Your task to perform on an android device: change notification settings in the gmail app Image 0: 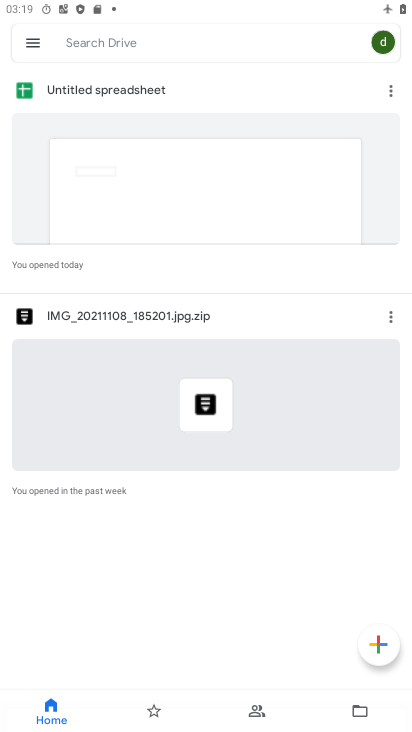
Step 0: press home button
Your task to perform on an android device: change notification settings in the gmail app Image 1: 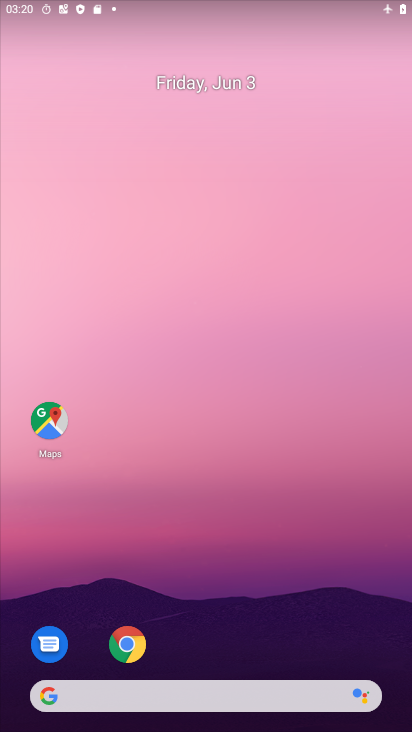
Step 1: drag from (201, 660) to (275, 118)
Your task to perform on an android device: change notification settings in the gmail app Image 2: 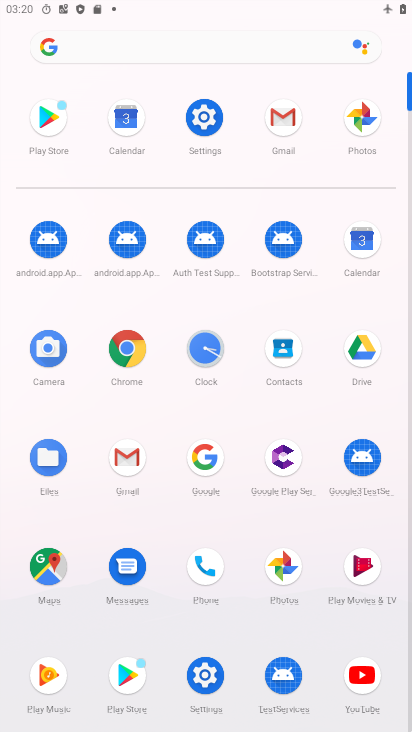
Step 2: click (275, 118)
Your task to perform on an android device: change notification settings in the gmail app Image 3: 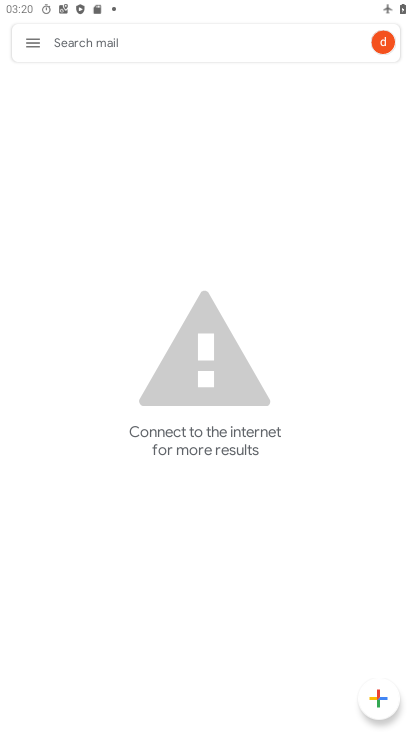
Step 3: click (27, 43)
Your task to perform on an android device: change notification settings in the gmail app Image 4: 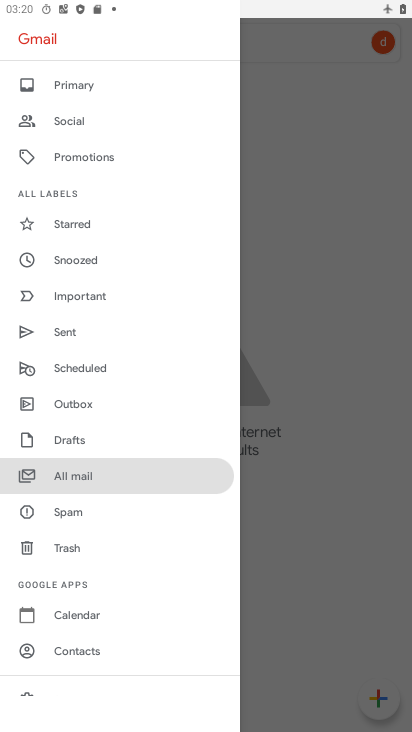
Step 4: drag from (115, 629) to (178, 211)
Your task to perform on an android device: change notification settings in the gmail app Image 5: 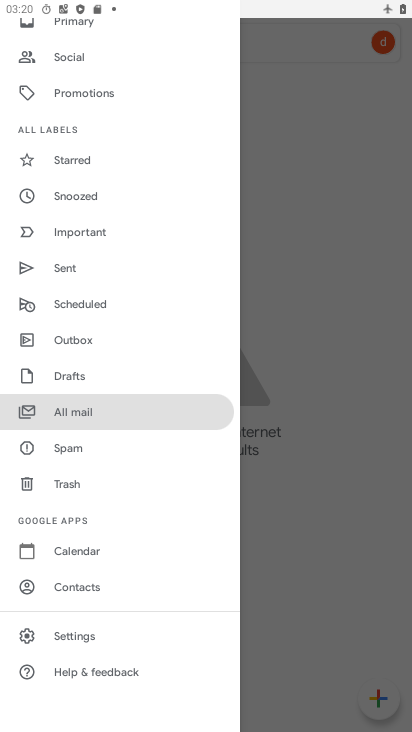
Step 5: click (80, 626)
Your task to perform on an android device: change notification settings in the gmail app Image 6: 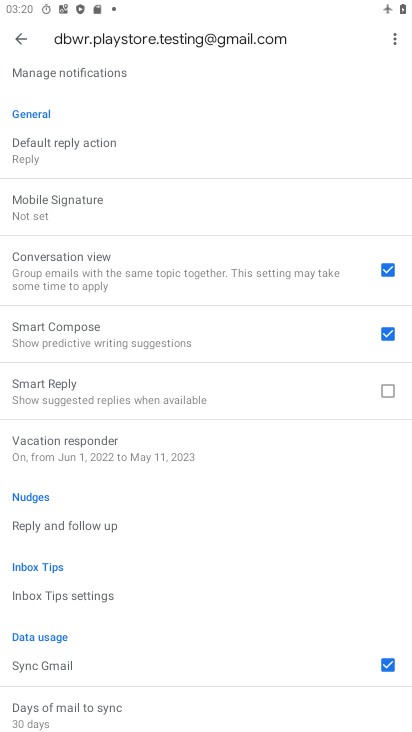
Step 6: drag from (184, 154) to (184, 277)
Your task to perform on an android device: change notification settings in the gmail app Image 7: 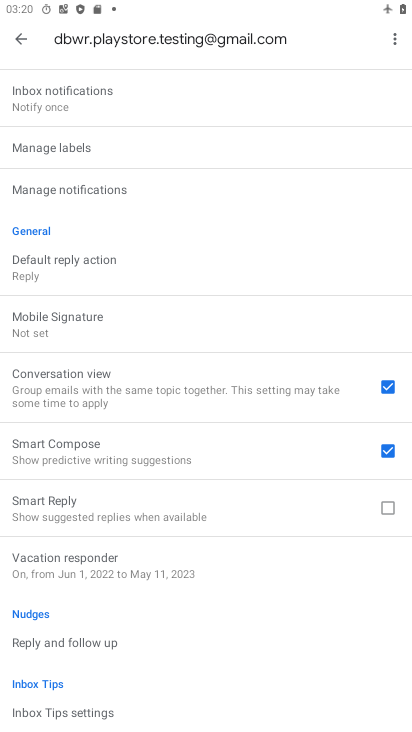
Step 7: click (130, 187)
Your task to perform on an android device: change notification settings in the gmail app Image 8: 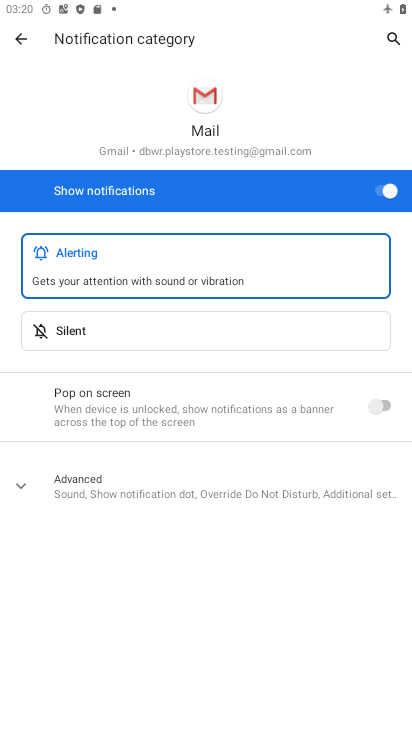
Step 8: click (373, 182)
Your task to perform on an android device: change notification settings in the gmail app Image 9: 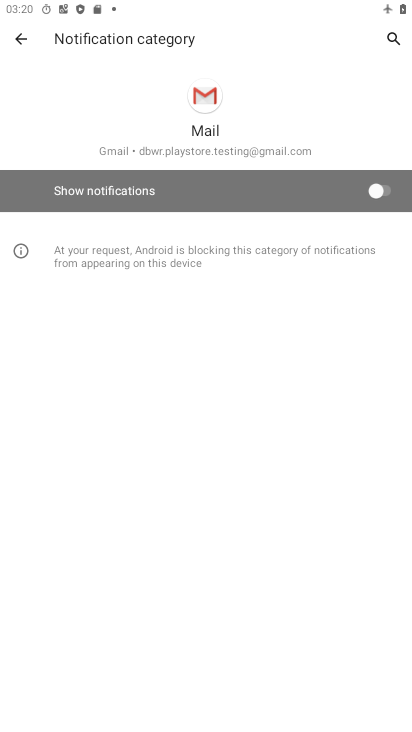
Step 9: task complete